Your task to perform on an android device: What is the news today? Image 0: 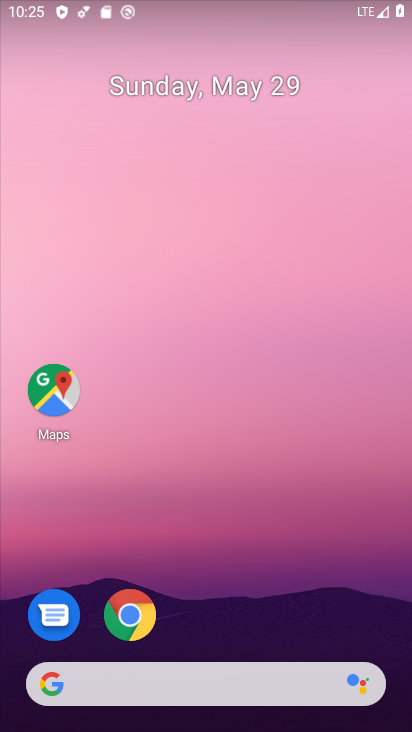
Step 0: drag from (5, 205) to (330, 228)
Your task to perform on an android device: What is the news today? Image 1: 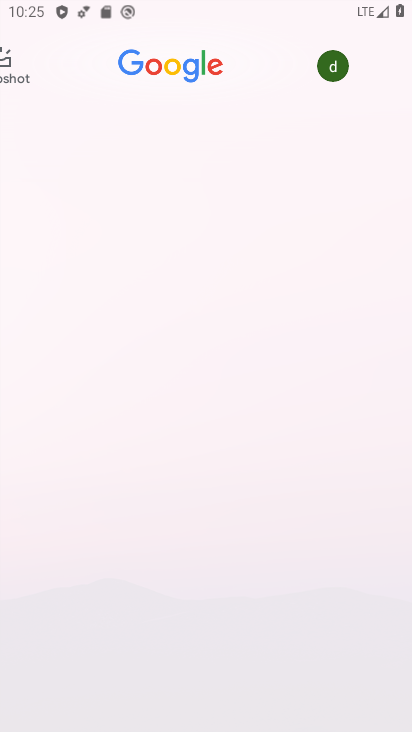
Step 1: task complete